Your task to perform on an android device: Do I have any events today? Image 0: 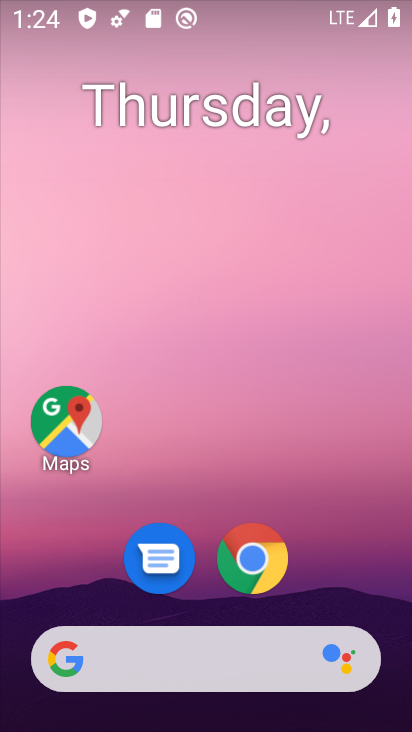
Step 0: drag from (386, 584) to (375, 125)
Your task to perform on an android device: Do I have any events today? Image 1: 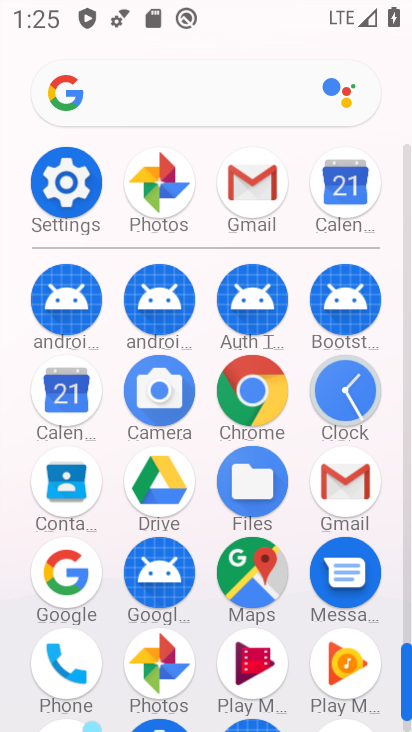
Step 1: click (72, 409)
Your task to perform on an android device: Do I have any events today? Image 2: 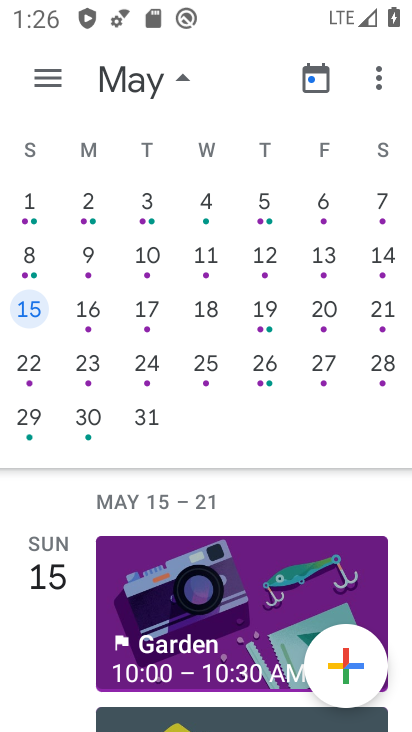
Step 2: drag from (61, 246) to (409, 342)
Your task to perform on an android device: Do I have any events today? Image 3: 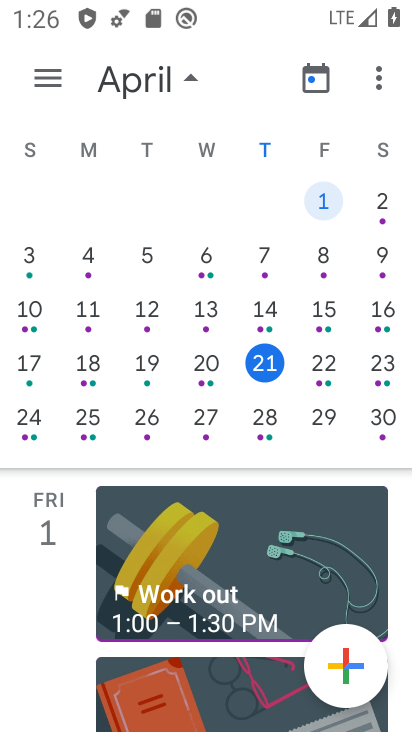
Step 3: click (271, 373)
Your task to perform on an android device: Do I have any events today? Image 4: 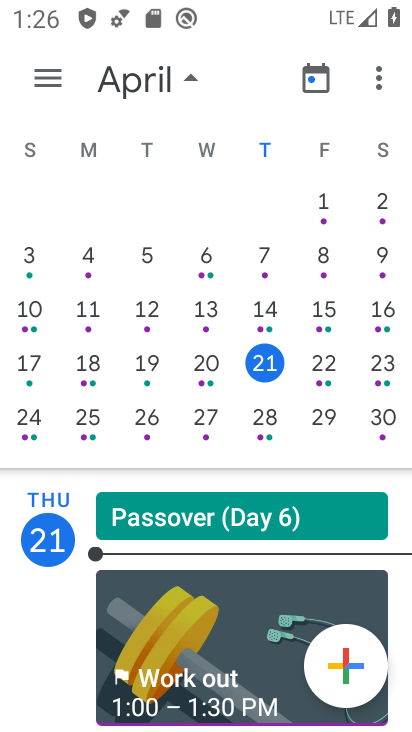
Step 4: task complete